Your task to perform on an android device: open the mobile data screen to see how much data has been used Image 0: 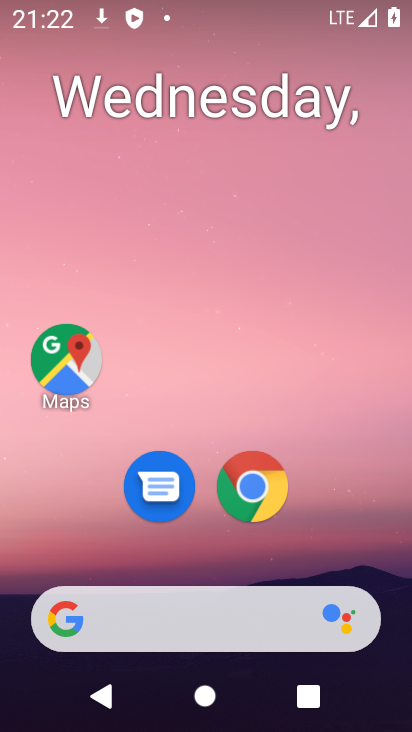
Step 0: drag from (226, 586) to (222, 77)
Your task to perform on an android device: open the mobile data screen to see how much data has been used Image 1: 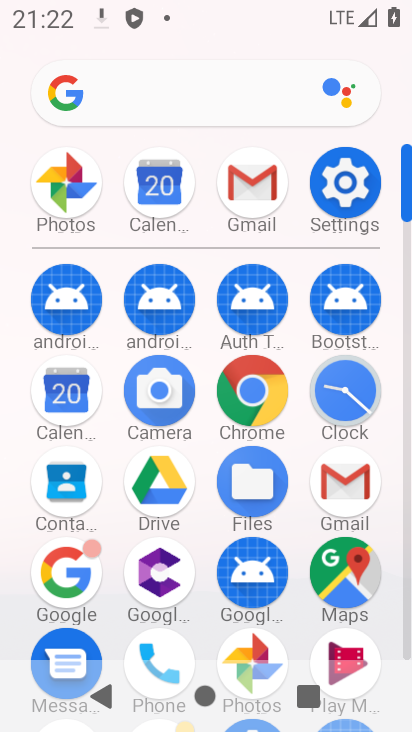
Step 1: click (351, 172)
Your task to perform on an android device: open the mobile data screen to see how much data has been used Image 2: 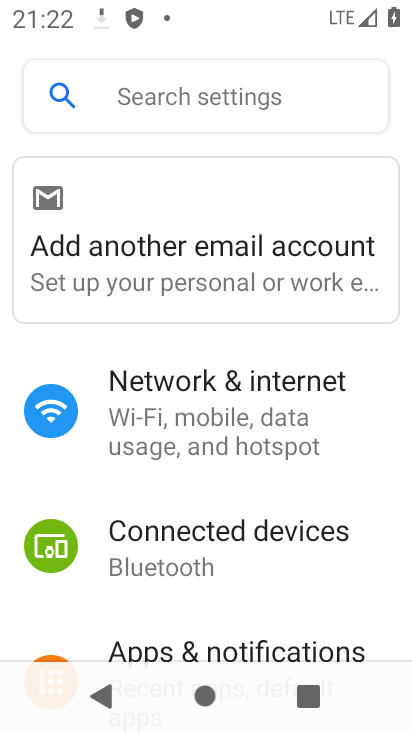
Step 2: click (246, 436)
Your task to perform on an android device: open the mobile data screen to see how much data has been used Image 3: 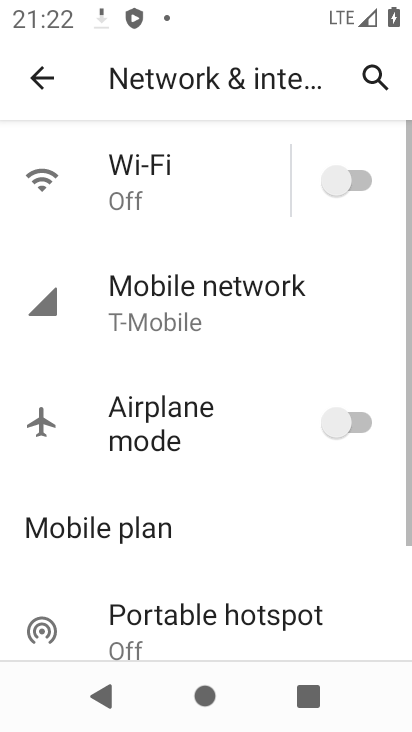
Step 3: drag from (174, 574) to (215, 551)
Your task to perform on an android device: open the mobile data screen to see how much data has been used Image 4: 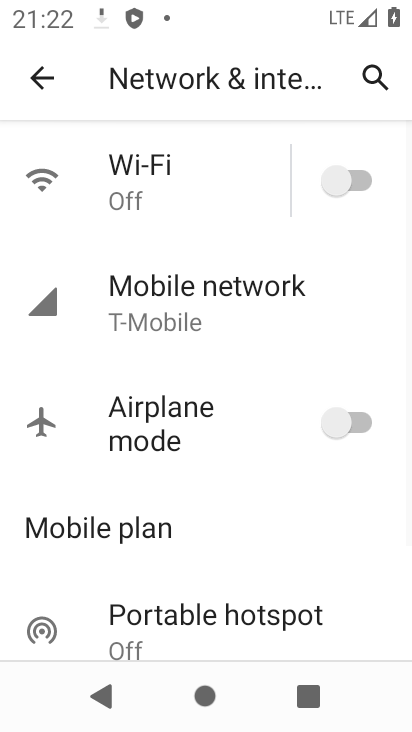
Step 4: click (169, 315)
Your task to perform on an android device: open the mobile data screen to see how much data has been used Image 5: 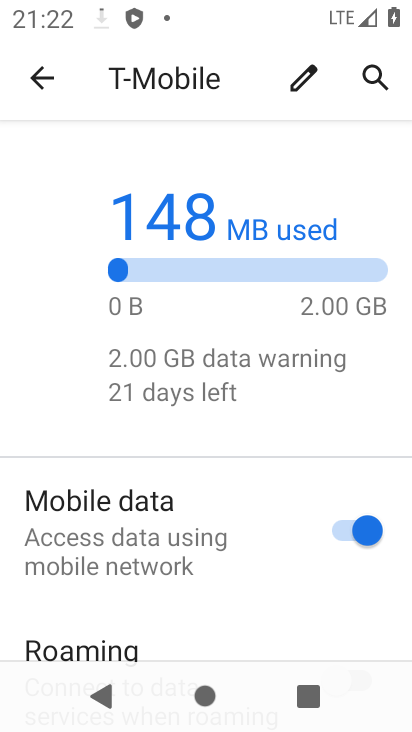
Step 5: drag from (159, 606) to (214, 121)
Your task to perform on an android device: open the mobile data screen to see how much data has been used Image 6: 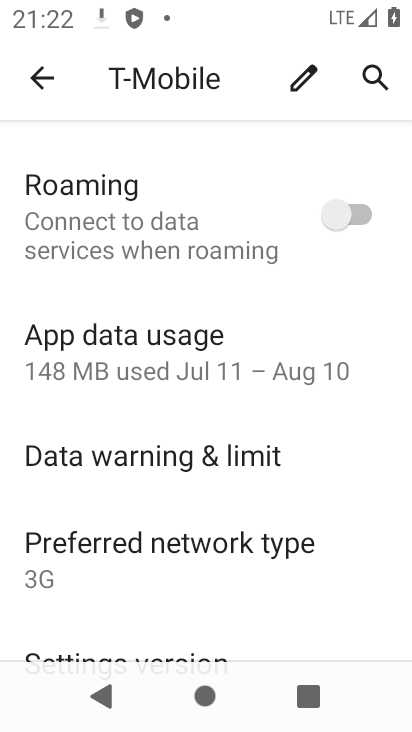
Step 6: click (176, 372)
Your task to perform on an android device: open the mobile data screen to see how much data has been used Image 7: 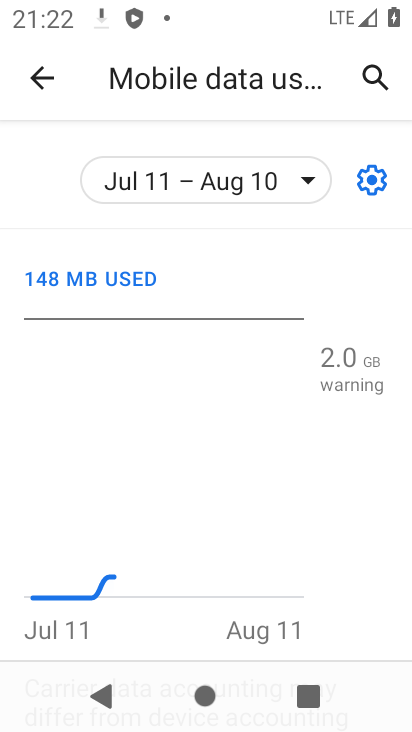
Step 7: task complete